Your task to perform on an android device: turn on wifi Image 0: 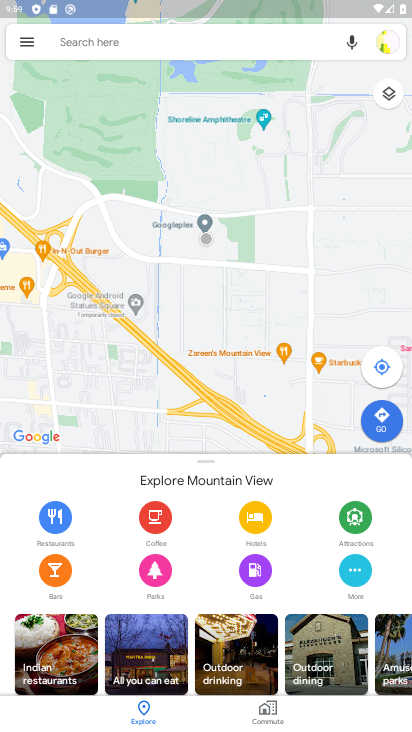
Step 0: press home button
Your task to perform on an android device: turn on wifi Image 1: 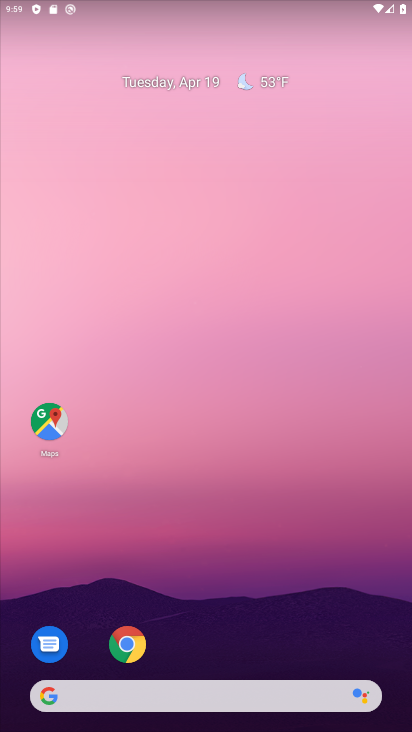
Step 1: drag from (195, 565) to (138, 19)
Your task to perform on an android device: turn on wifi Image 2: 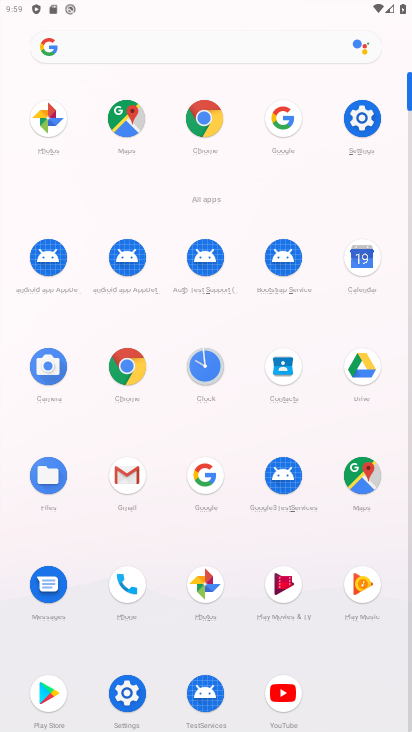
Step 2: click (373, 113)
Your task to perform on an android device: turn on wifi Image 3: 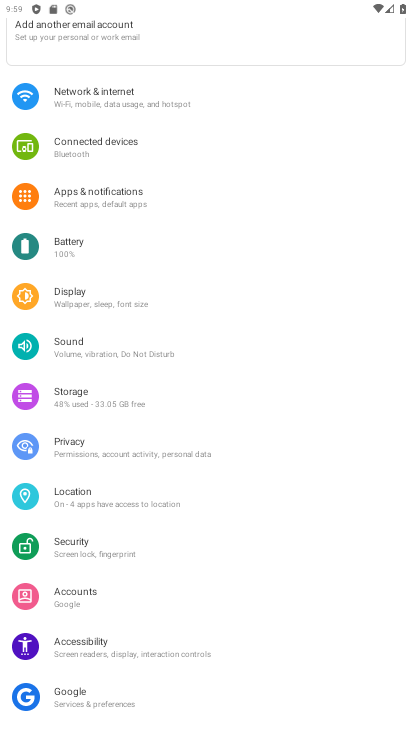
Step 3: click (187, 99)
Your task to perform on an android device: turn on wifi Image 4: 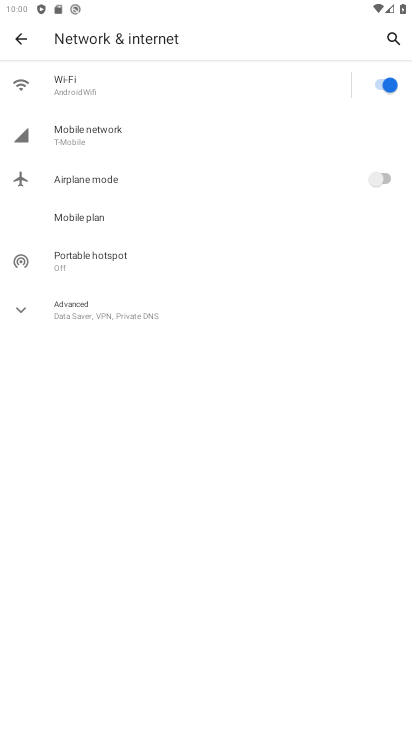
Step 4: task complete